Your task to perform on an android device: add a label to a message in the gmail app Image 0: 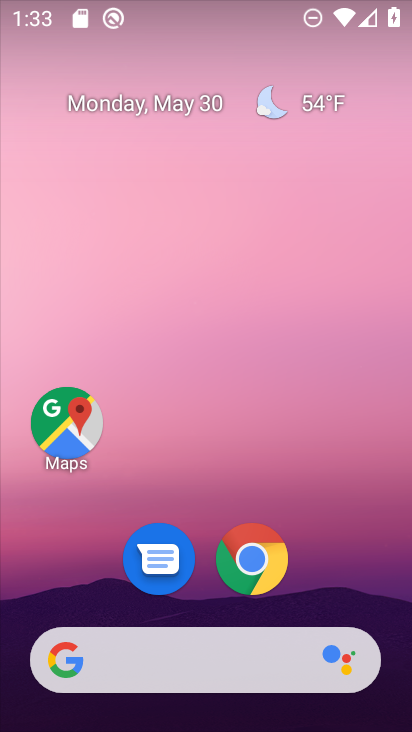
Step 0: drag from (323, 588) to (339, 39)
Your task to perform on an android device: add a label to a message in the gmail app Image 1: 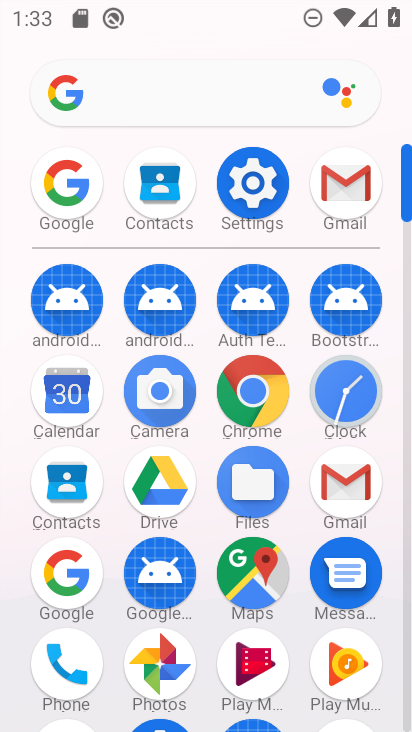
Step 1: click (344, 178)
Your task to perform on an android device: add a label to a message in the gmail app Image 2: 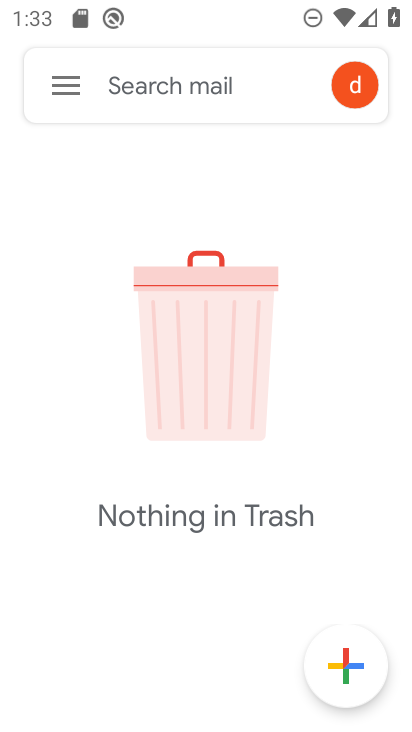
Step 2: click (70, 80)
Your task to perform on an android device: add a label to a message in the gmail app Image 3: 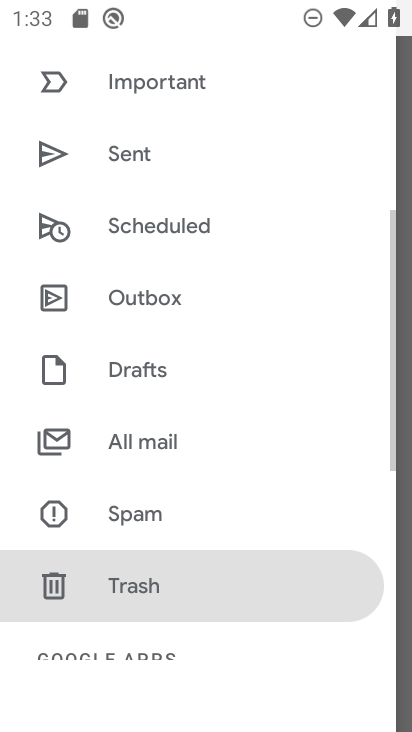
Step 3: click (191, 450)
Your task to perform on an android device: add a label to a message in the gmail app Image 4: 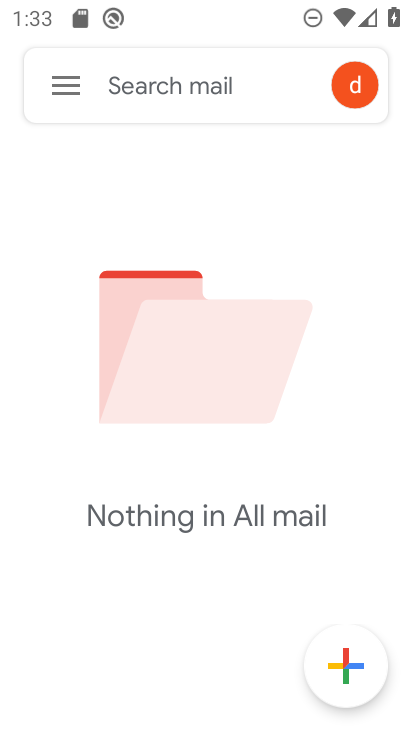
Step 4: task complete